Your task to perform on an android device: open chrome and create a bookmark for the current page Image 0: 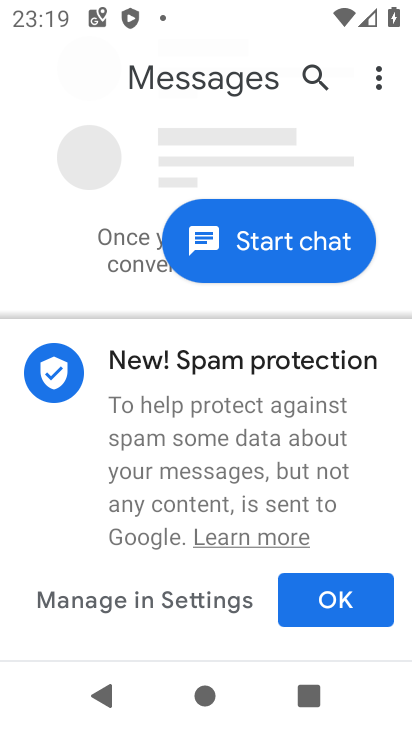
Step 0: press home button
Your task to perform on an android device: open chrome and create a bookmark for the current page Image 1: 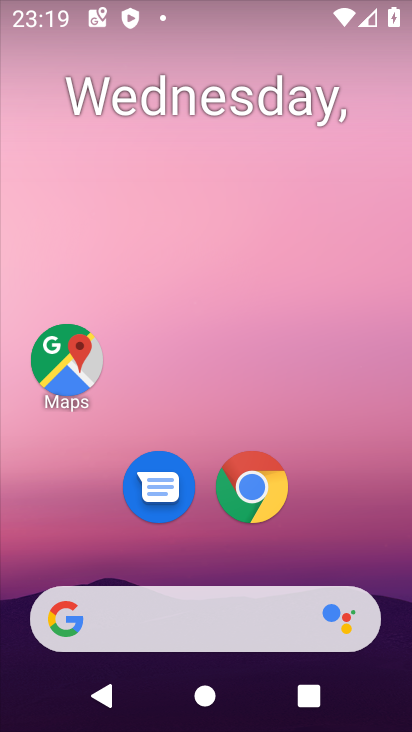
Step 1: click (247, 491)
Your task to perform on an android device: open chrome and create a bookmark for the current page Image 2: 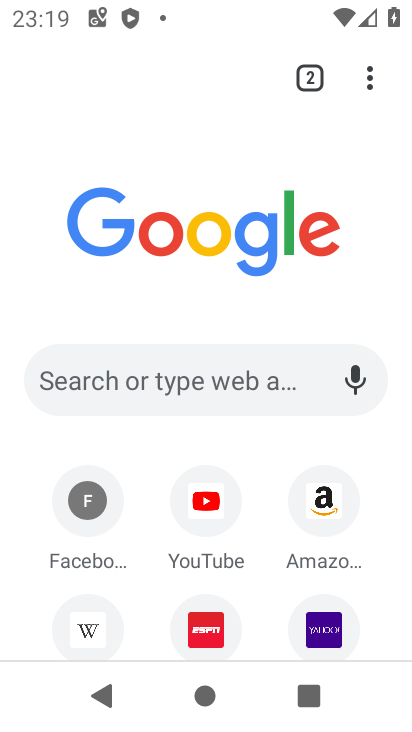
Step 2: click (371, 79)
Your task to perform on an android device: open chrome and create a bookmark for the current page Image 3: 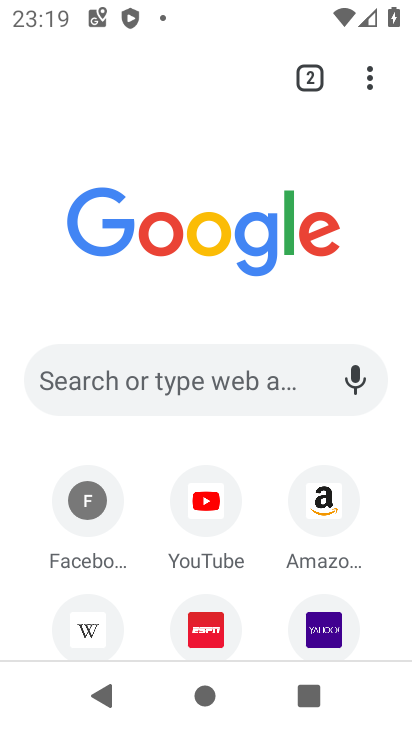
Step 3: click (371, 79)
Your task to perform on an android device: open chrome and create a bookmark for the current page Image 4: 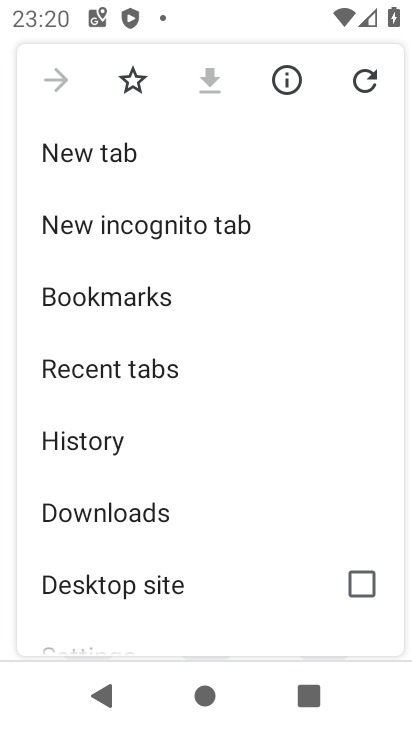
Step 4: click (132, 82)
Your task to perform on an android device: open chrome and create a bookmark for the current page Image 5: 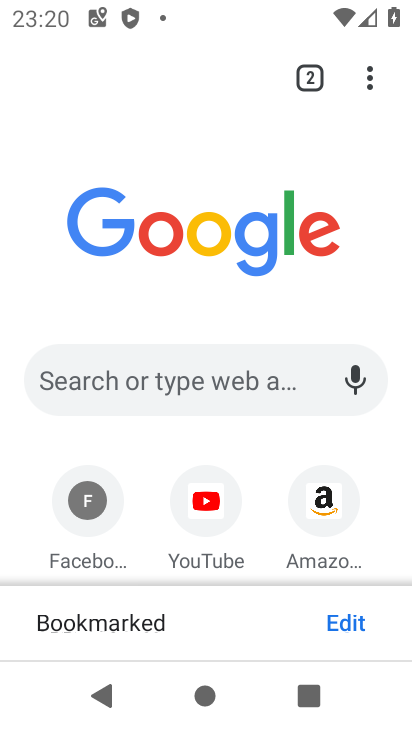
Step 5: task complete